Your task to perform on an android device: move an email to a new category in the gmail app Image 0: 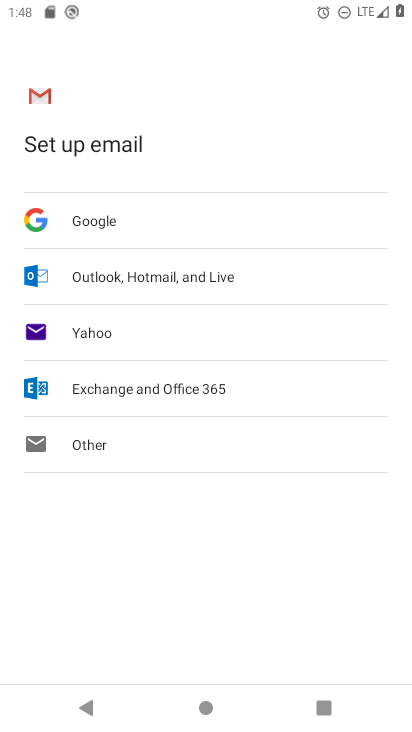
Step 0: press home button
Your task to perform on an android device: move an email to a new category in the gmail app Image 1: 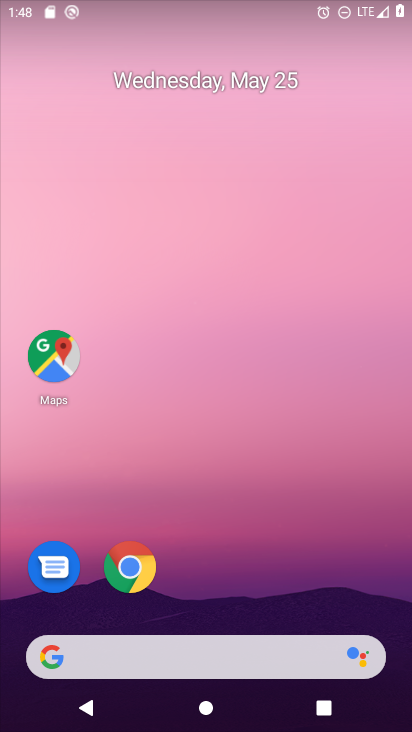
Step 1: drag from (396, 674) to (380, 253)
Your task to perform on an android device: move an email to a new category in the gmail app Image 2: 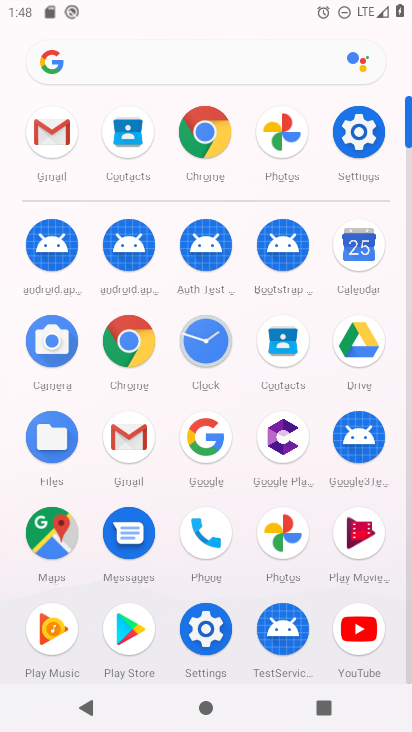
Step 2: click (125, 439)
Your task to perform on an android device: move an email to a new category in the gmail app Image 3: 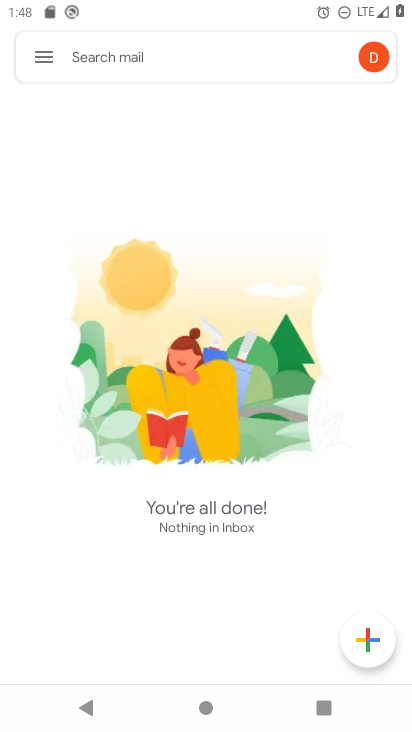
Step 3: click (48, 59)
Your task to perform on an android device: move an email to a new category in the gmail app Image 4: 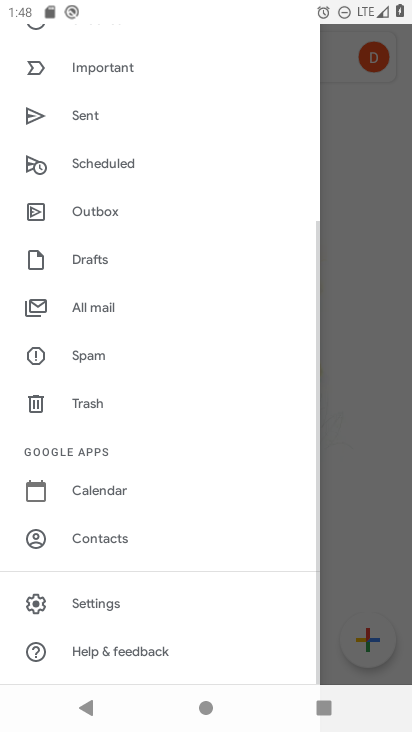
Step 4: drag from (246, 101) to (255, 517)
Your task to perform on an android device: move an email to a new category in the gmail app Image 5: 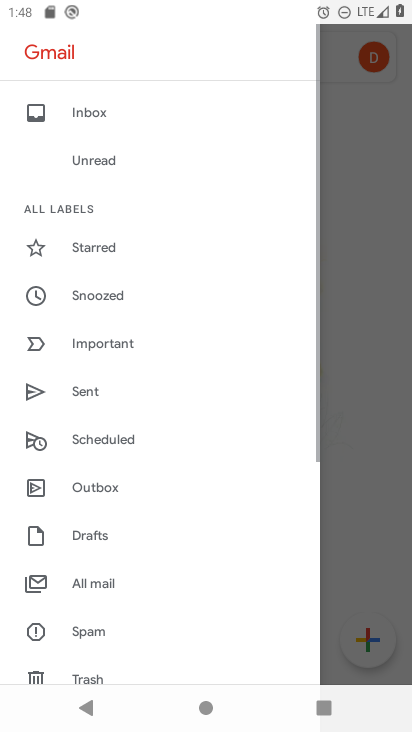
Step 5: click (236, 535)
Your task to perform on an android device: move an email to a new category in the gmail app Image 6: 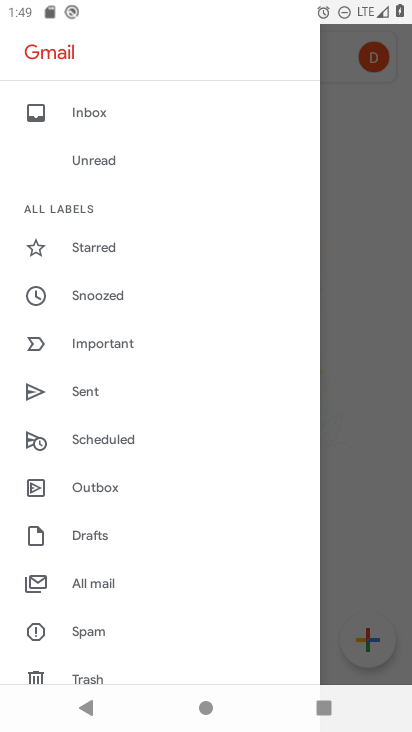
Step 6: drag from (216, 127) to (240, 569)
Your task to perform on an android device: move an email to a new category in the gmail app Image 7: 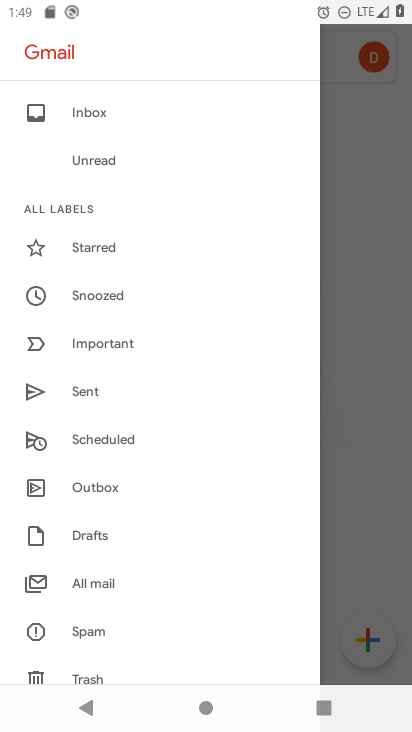
Step 7: click (76, 111)
Your task to perform on an android device: move an email to a new category in the gmail app Image 8: 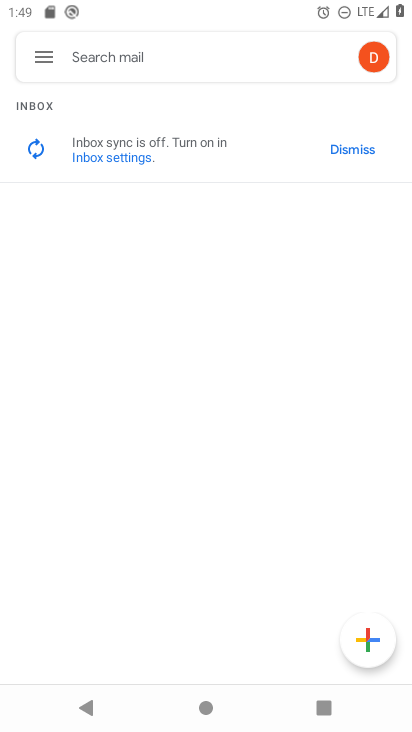
Step 8: task complete